Your task to perform on an android device: Open Google Chrome and open the bookmarks view Image 0: 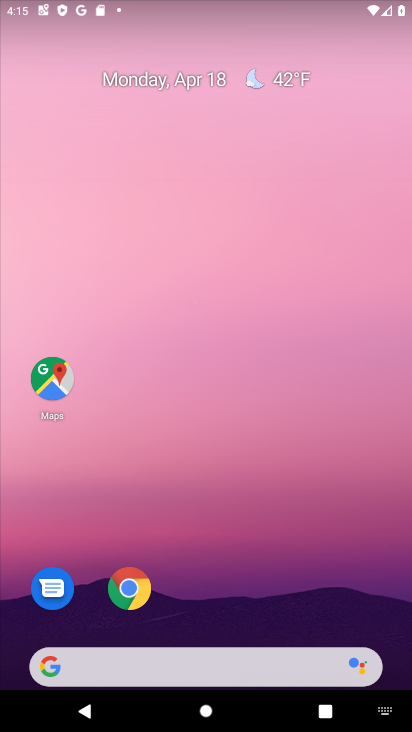
Step 0: click (134, 599)
Your task to perform on an android device: Open Google Chrome and open the bookmarks view Image 1: 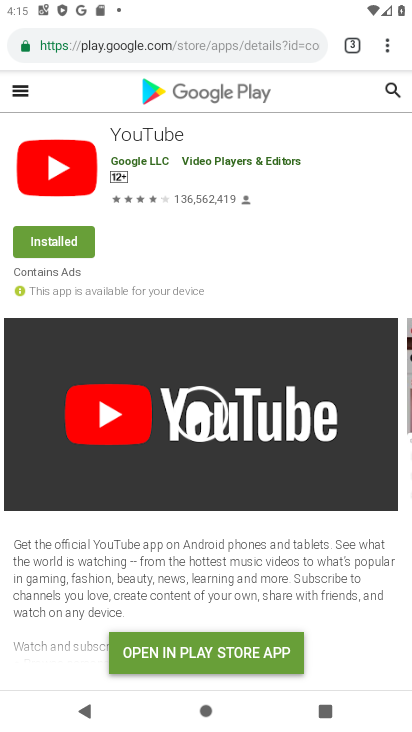
Step 1: task complete